Your task to perform on an android device: turn off location Image 0: 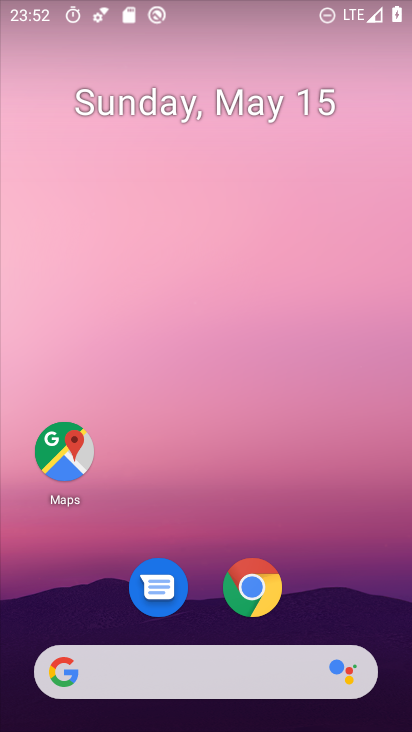
Step 0: drag from (204, 628) to (206, 212)
Your task to perform on an android device: turn off location Image 1: 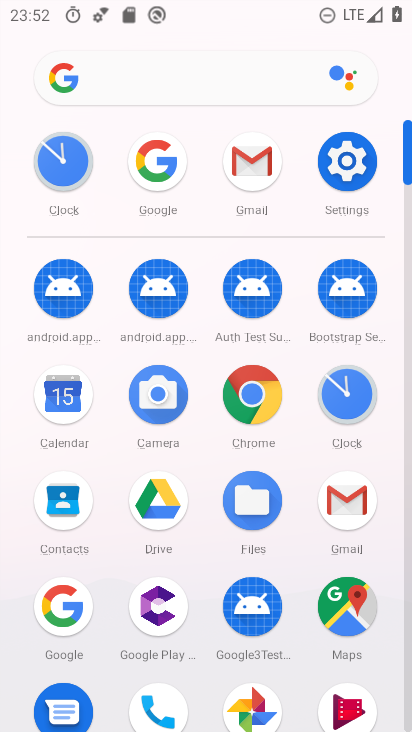
Step 1: click (333, 192)
Your task to perform on an android device: turn off location Image 2: 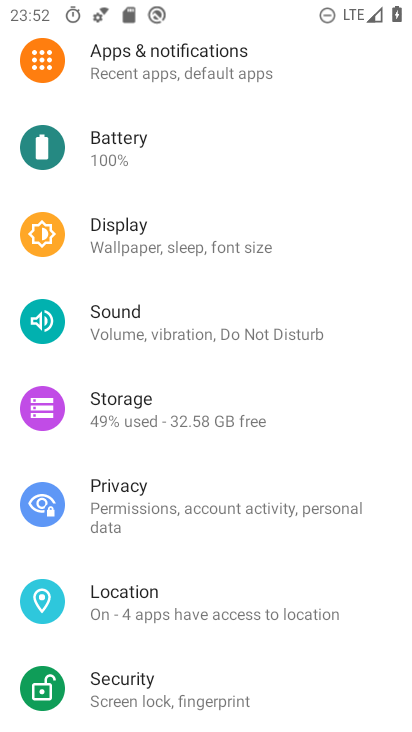
Step 2: click (159, 589)
Your task to perform on an android device: turn off location Image 3: 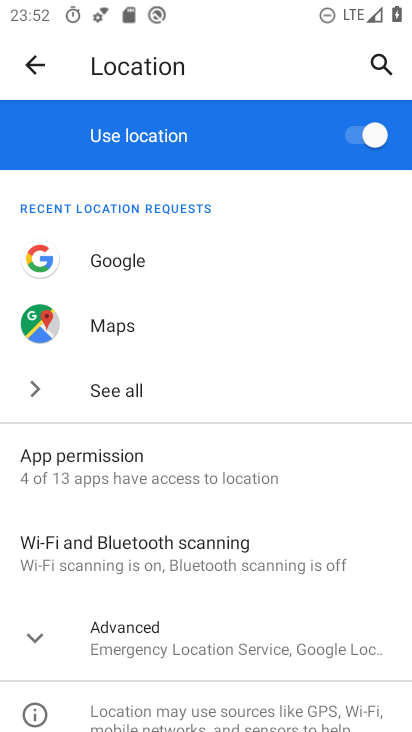
Step 3: click (354, 138)
Your task to perform on an android device: turn off location Image 4: 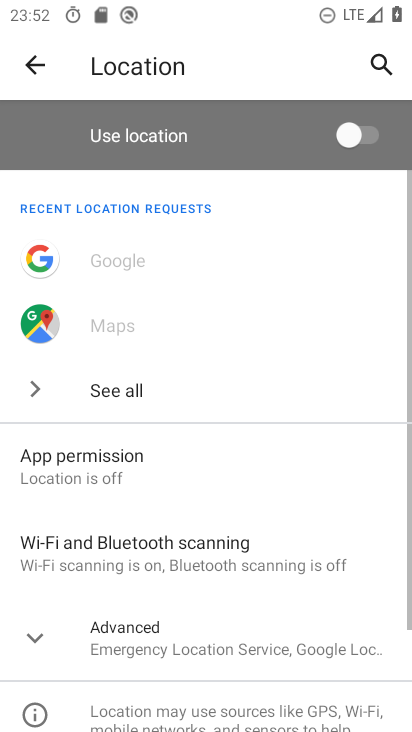
Step 4: task complete